Your task to perform on an android device: open a new tab in the chrome app Image 0: 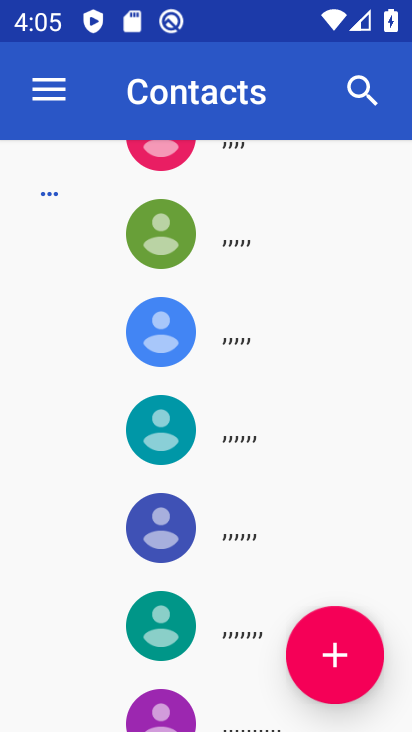
Step 0: press home button
Your task to perform on an android device: open a new tab in the chrome app Image 1: 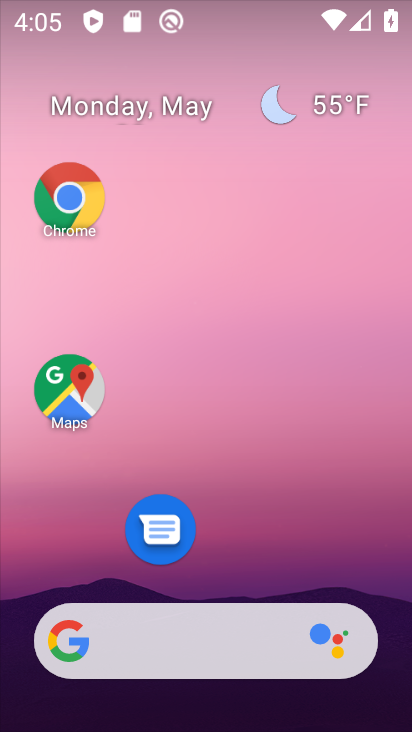
Step 1: click (57, 204)
Your task to perform on an android device: open a new tab in the chrome app Image 2: 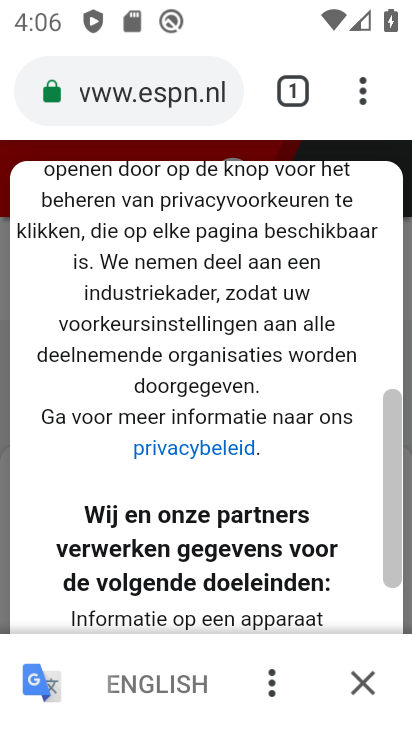
Step 2: drag from (296, 86) to (203, 417)
Your task to perform on an android device: open a new tab in the chrome app Image 3: 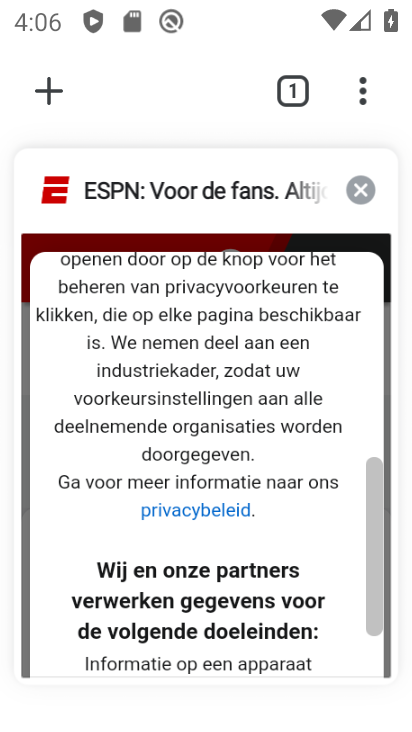
Step 3: click (60, 98)
Your task to perform on an android device: open a new tab in the chrome app Image 4: 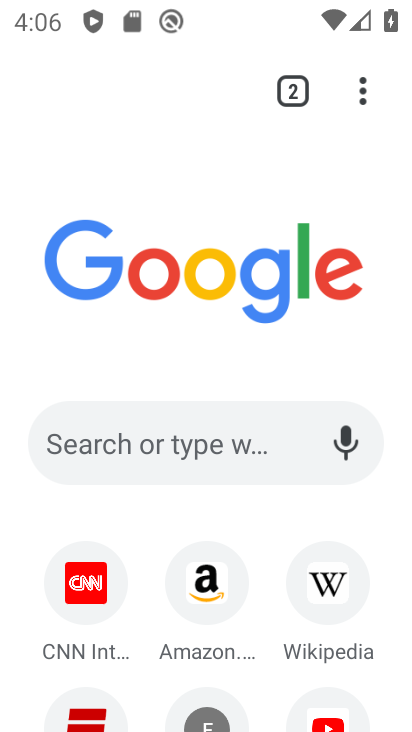
Step 4: task complete